Your task to perform on an android device: star an email in the gmail app Image 0: 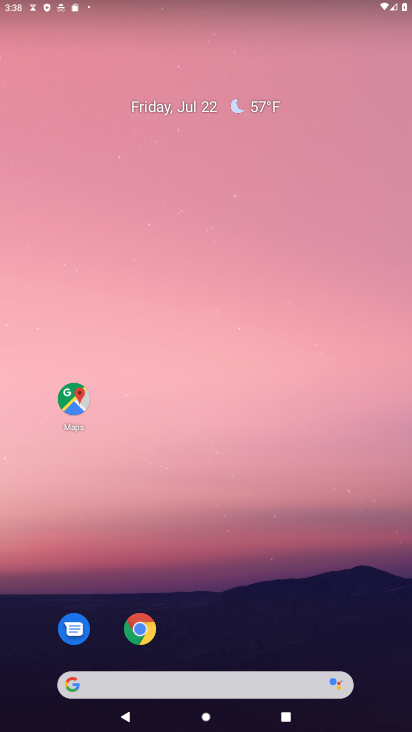
Step 0: click (233, 60)
Your task to perform on an android device: star an email in the gmail app Image 1: 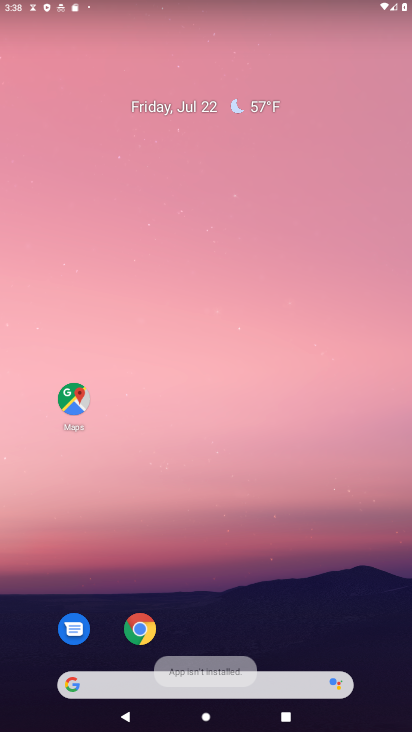
Step 1: drag from (146, 622) to (88, 265)
Your task to perform on an android device: star an email in the gmail app Image 2: 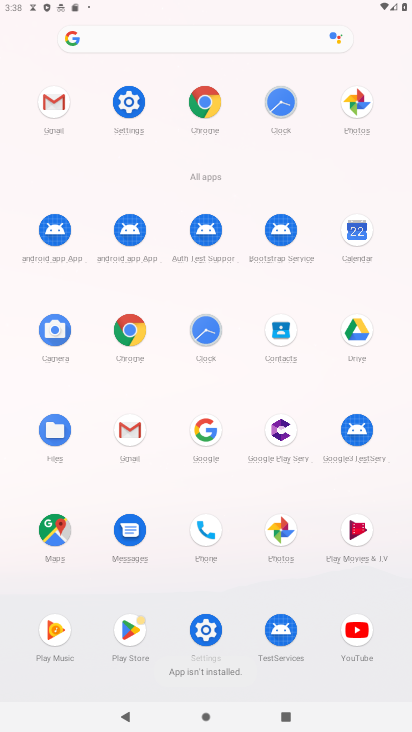
Step 2: drag from (130, 192) to (257, 168)
Your task to perform on an android device: star an email in the gmail app Image 3: 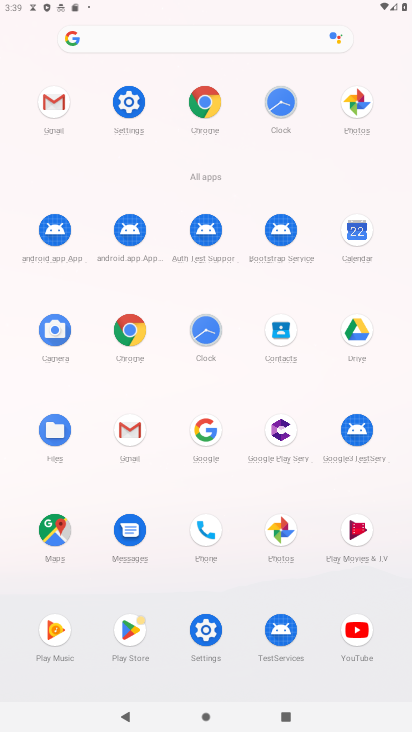
Step 3: click (122, 426)
Your task to perform on an android device: star an email in the gmail app Image 4: 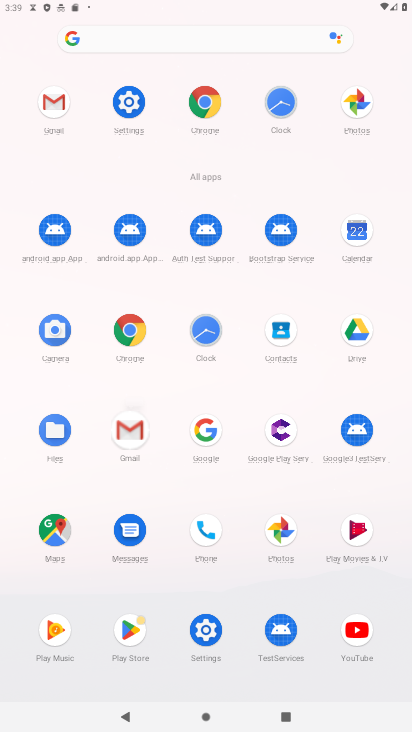
Step 4: click (122, 436)
Your task to perform on an android device: star an email in the gmail app Image 5: 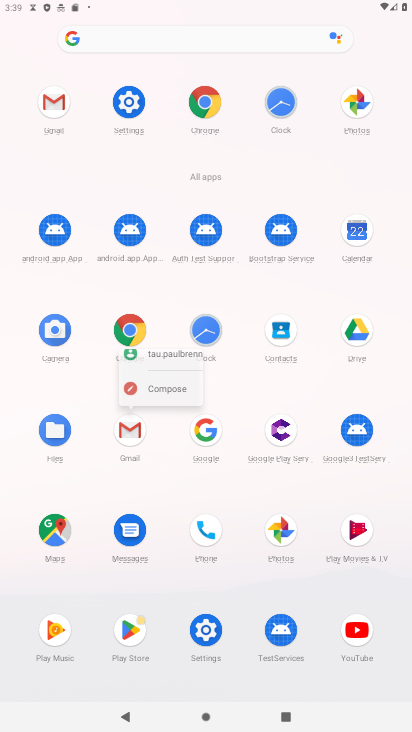
Step 5: click (128, 433)
Your task to perform on an android device: star an email in the gmail app Image 6: 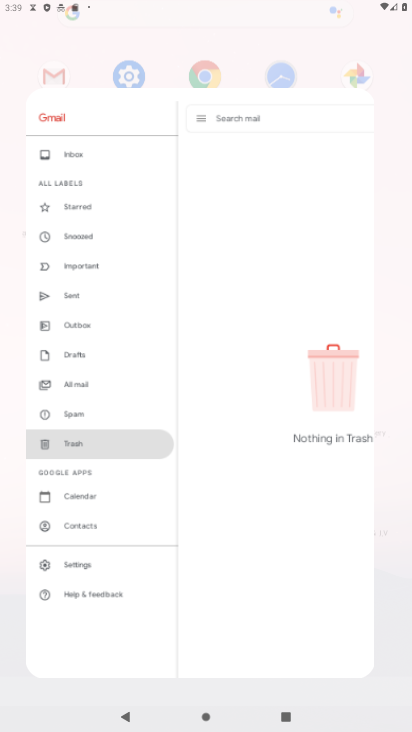
Step 6: click (132, 434)
Your task to perform on an android device: star an email in the gmail app Image 7: 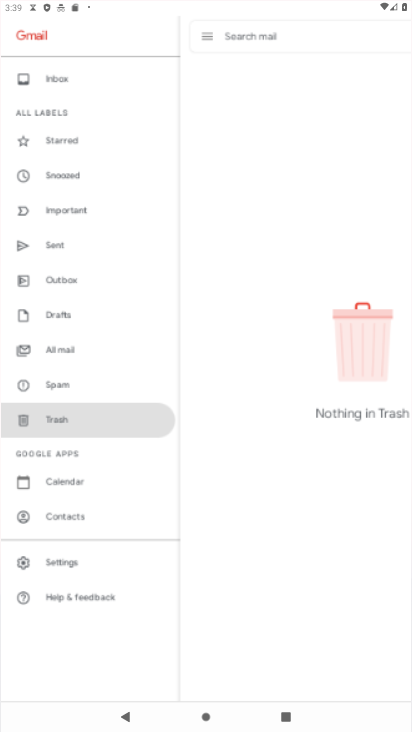
Step 7: click (133, 434)
Your task to perform on an android device: star an email in the gmail app Image 8: 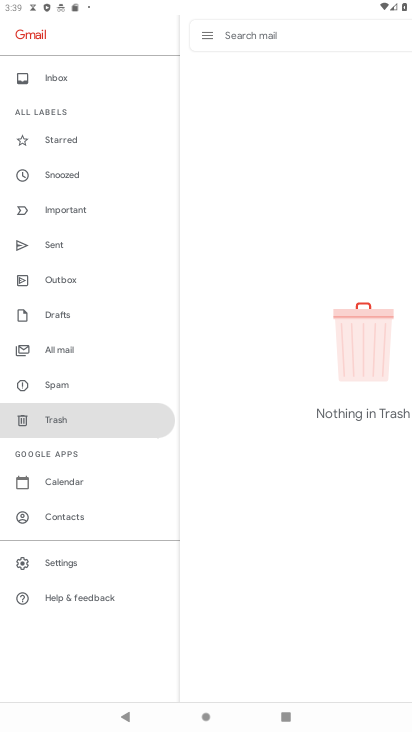
Step 8: drag from (119, 294) to (121, 156)
Your task to perform on an android device: star an email in the gmail app Image 9: 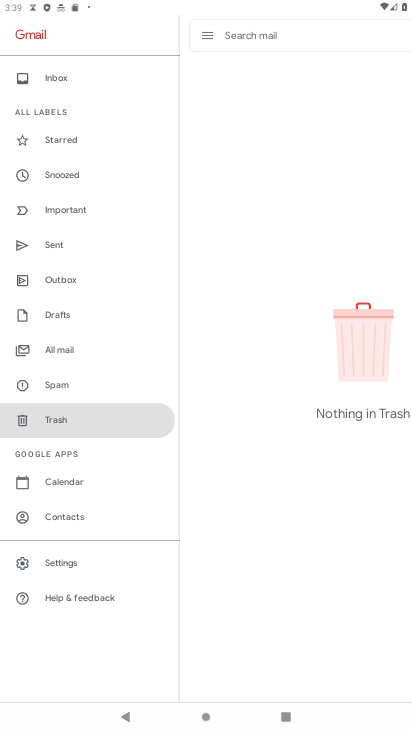
Step 9: drag from (162, 204) to (162, 32)
Your task to perform on an android device: star an email in the gmail app Image 10: 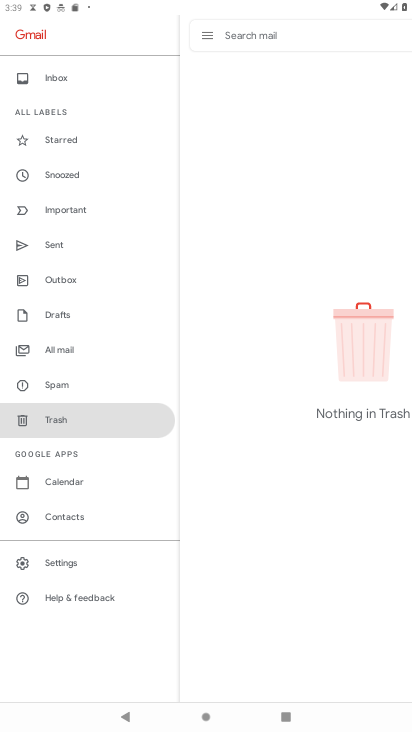
Step 10: drag from (224, 269) to (250, 87)
Your task to perform on an android device: star an email in the gmail app Image 11: 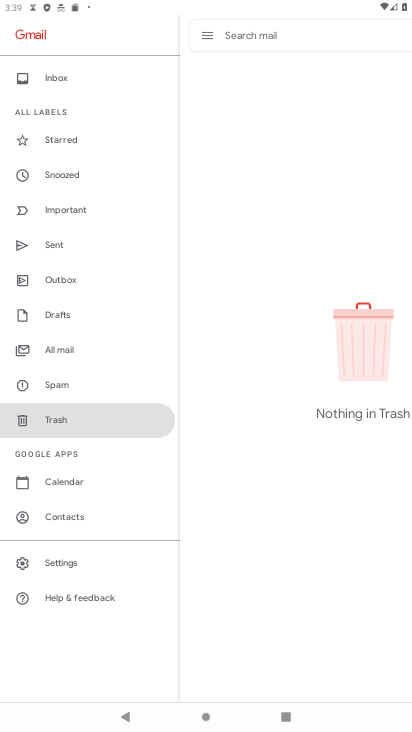
Step 11: drag from (273, 393) to (273, 157)
Your task to perform on an android device: star an email in the gmail app Image 12: 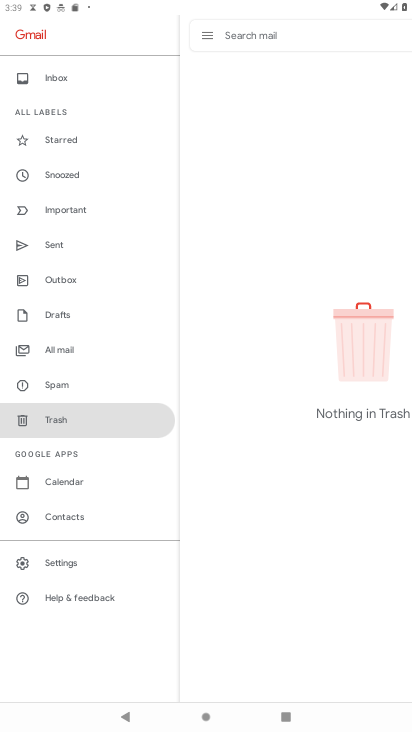
Step 12: drag from (285, 457) to (261, 173)
Your task to perform on an android device: star an email in the gmail app Image 13: 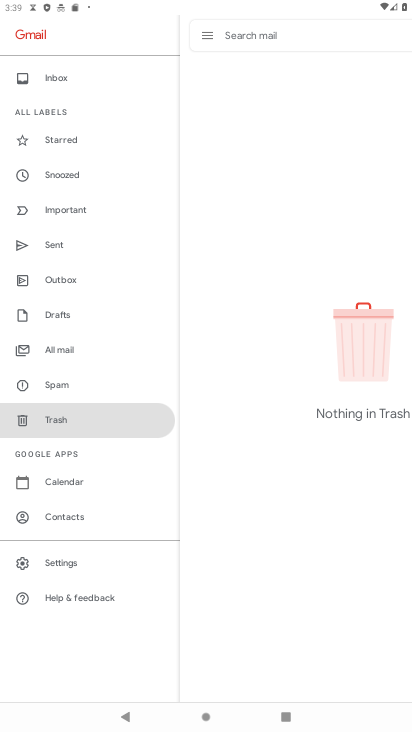
Step 13: drag from (199, 331) to (195, 82)
Your task to perform on an android device: star an email in the gmail app Image 14: 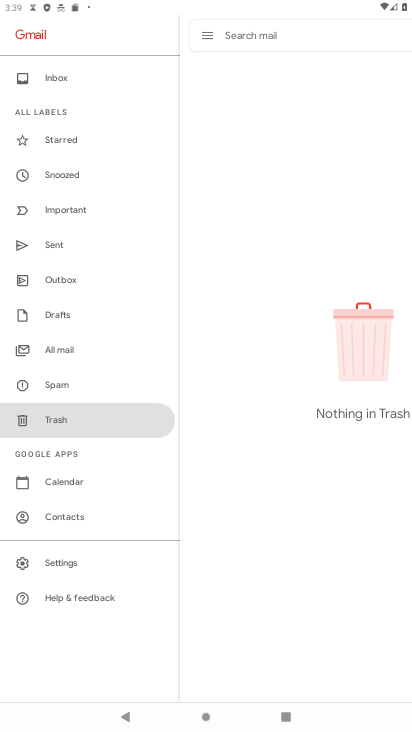
Step 14: drag from (253, 550) to (172, 118)
Your task to perform on an android device: star an email in the gmail app Image 15: 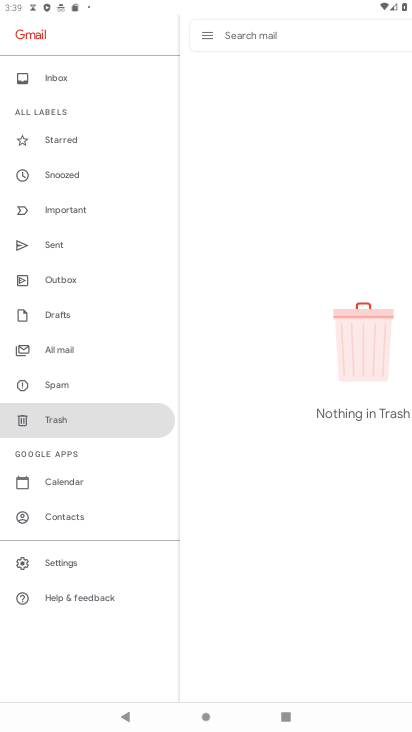
Step 15: drag from (159, 586) to (143, 198)
Your task to perform on an android device: star an email in the gmail app Image 16: 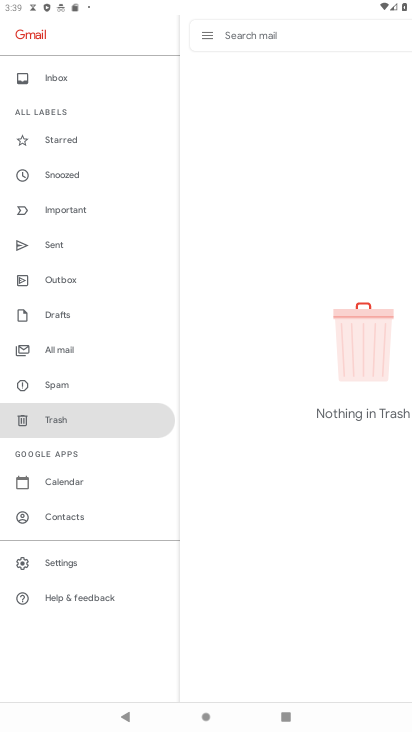
Step 16: drag from (200, 401) to (197, 114)
Your task to perform on an android device: star an email in the gmail app Image 17: 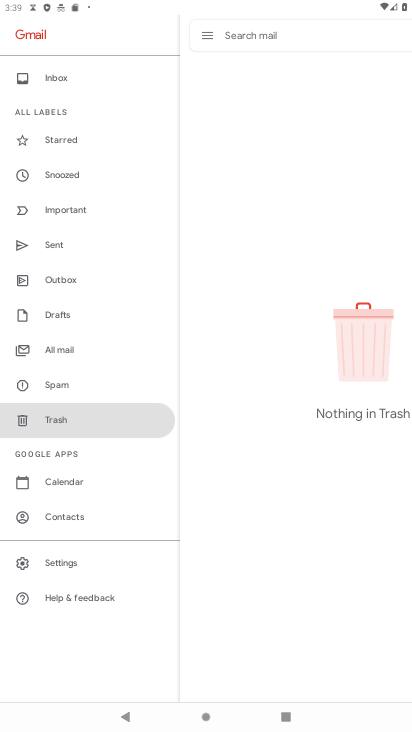
Step 17: drag from (218, 418) to (195, 230)
Your task to perform on an android device: star an email in the gmail app Image 18: 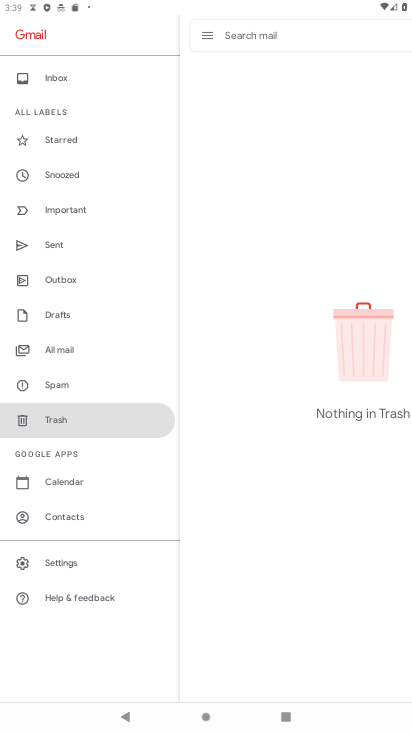
Step 18: drag from (234, 290) to (239, 251)
Your task to perform on an android device: star an email in the gmail app Image 19: 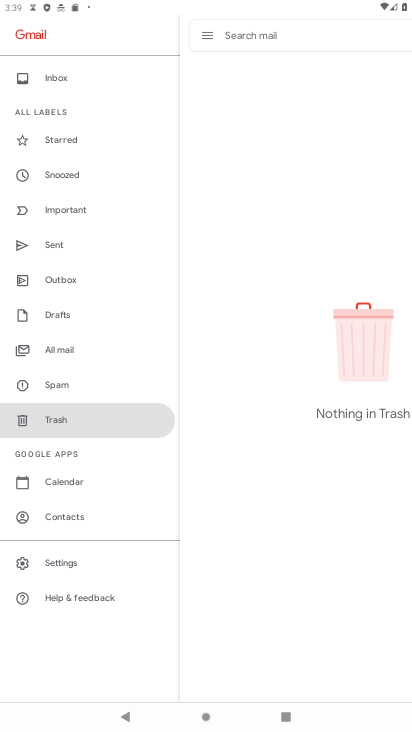
Step 19: click (56, 357)
Your task to perform on an android device: star an email in the gmail app Image 20: 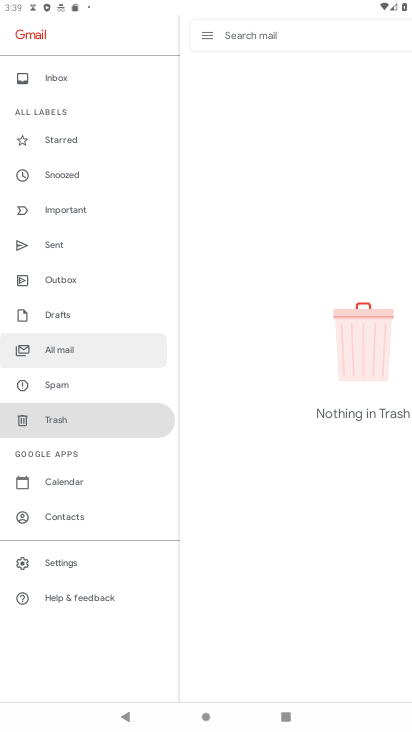
Step 20: click (56, 354)
Your task to perform on an android device: star an email in the gmail app Image 21: 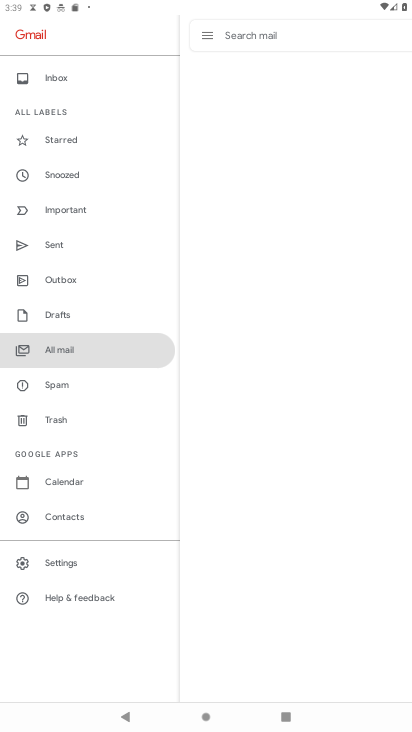
Step 21: click (56, 354)
Your task to perform on an android device: star an email in the gmail app Image 22: 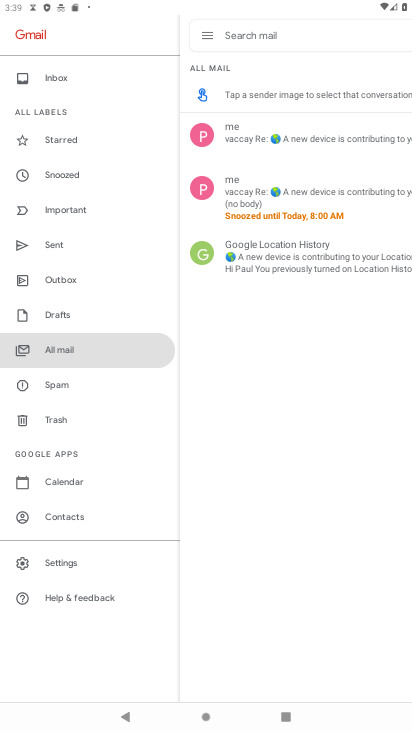
Step 22: click (56, 354)
Your task to perform on an android device: star an email in the gmail app Image 23: 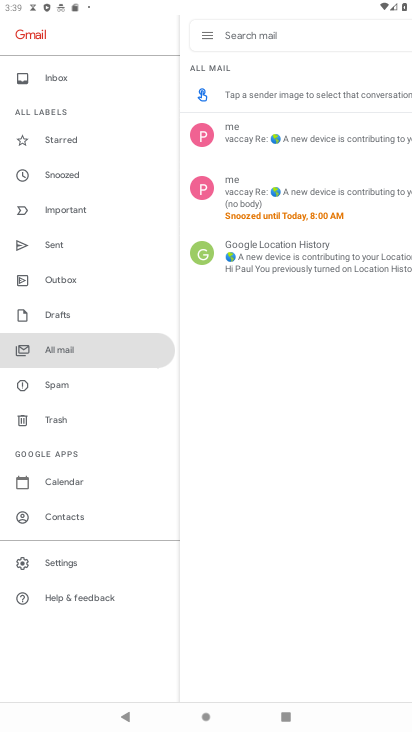
Step 23: click (315, 150)
Your task to perform on an android device: star an email in the gmail app Image 24: 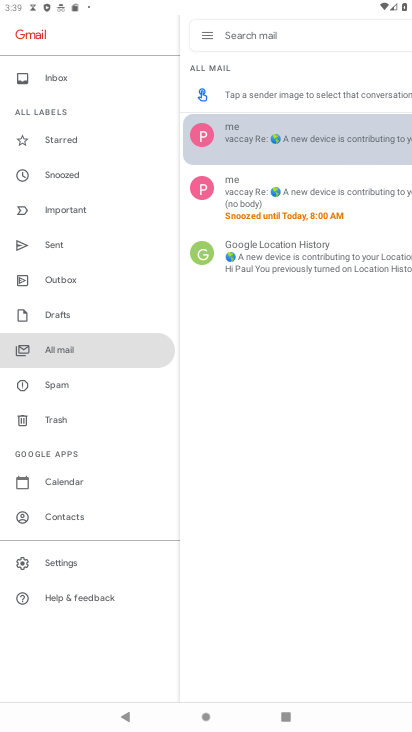
Step 24: click (314, 137)
Your task to perform on an android device: star an email in the gmail app Image 25: 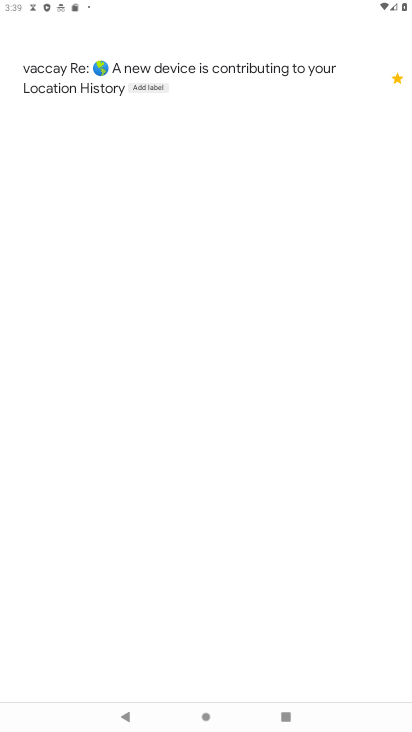
Step 25: click (319, 130)
Your task to perform on an android device: star an email in the gmail app Image 26: 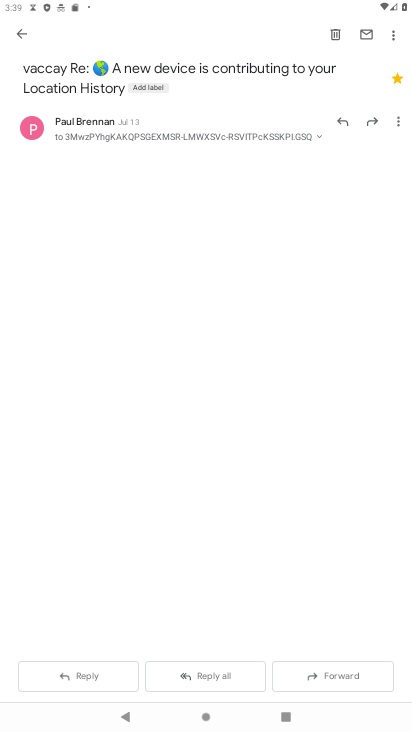
Step 26: click (325, 136)
Your task to perform on an android device: star an email in the gmail app Image 27: 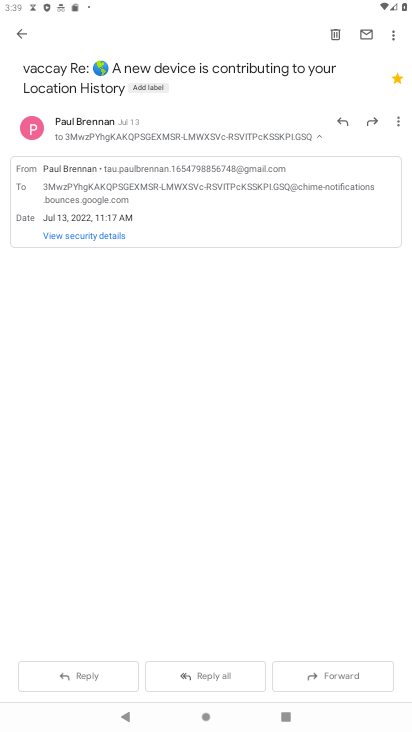
Step 27: click (390, 123)
Your task to perform on an android device: star an email in the gmail app Image 28: 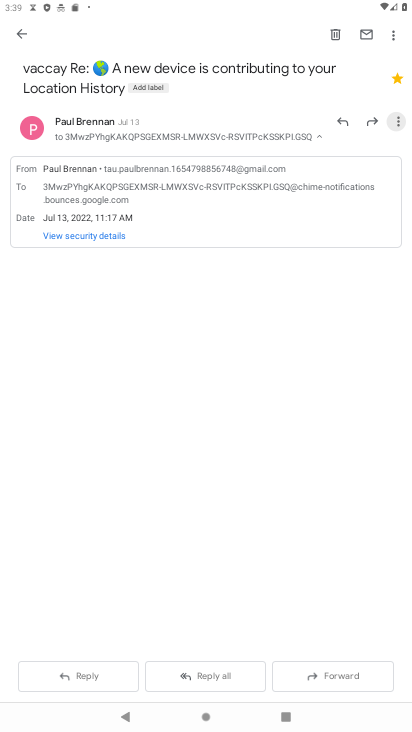
Step 28: click (391, 121)
Your task to perform on an android device: star an email in the gmail app Image 29: 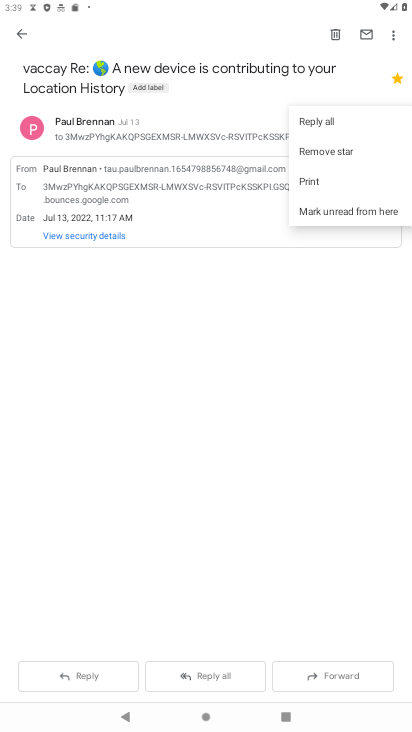
Step 29: click (250, 311)
Your task to perform on an android device: star an email in the gmail app Image 30: 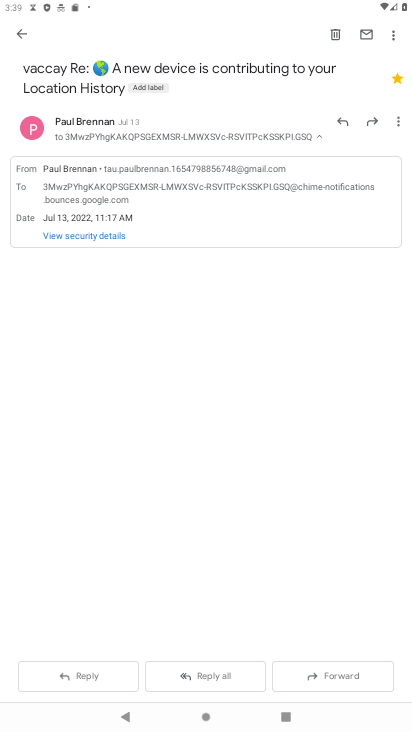
Step 30: task complete